Your task to perform on an android device: Is it going to rain this weekend? Image 0: 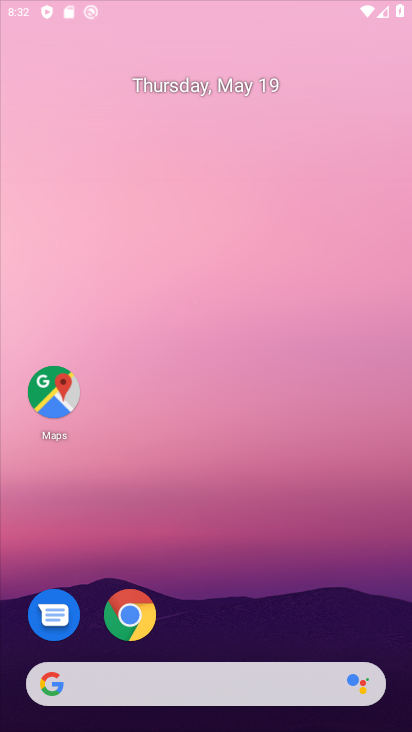
Step 0: press home button
Your task to perform on an android device: Is it going to rain this weekend? Image 1: 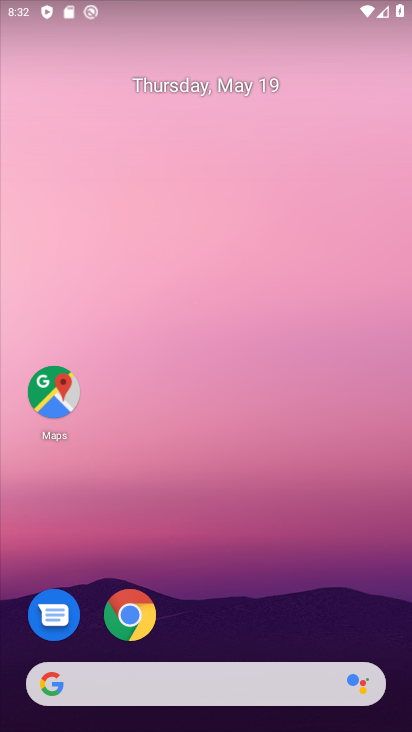
Step 1: click (123, 638)
Your task to perform on an android device: Is it going to rain this weekend? Image 2: 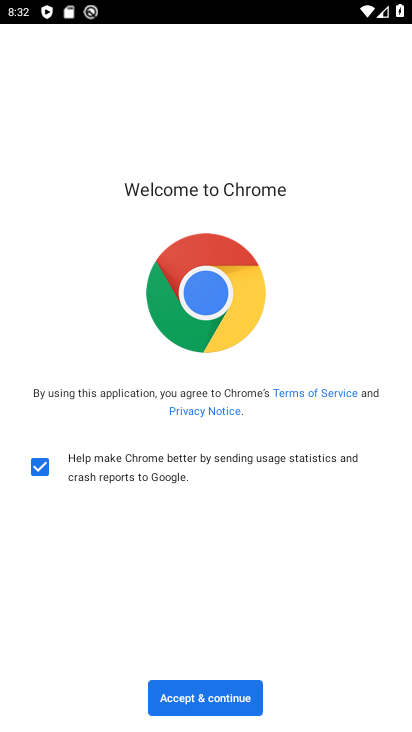
Step 2: click (200, 700)
Your task to perform on an android device: Is it going to rain this weekend? Image 3: 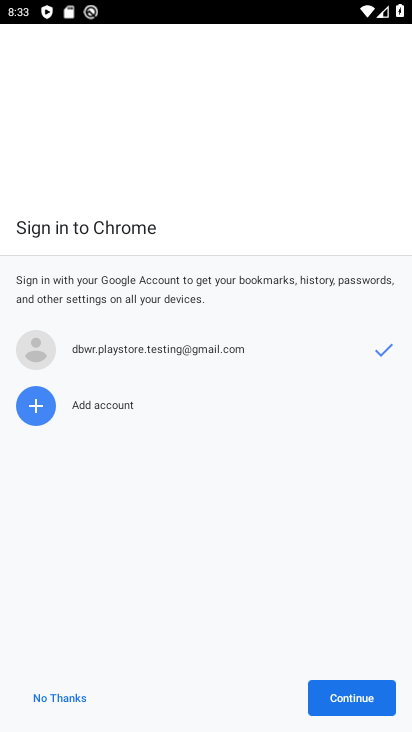
Step 3: click (329, 689)
Your task to perform on an android device: Is it going to rain this weekend? Image 4: 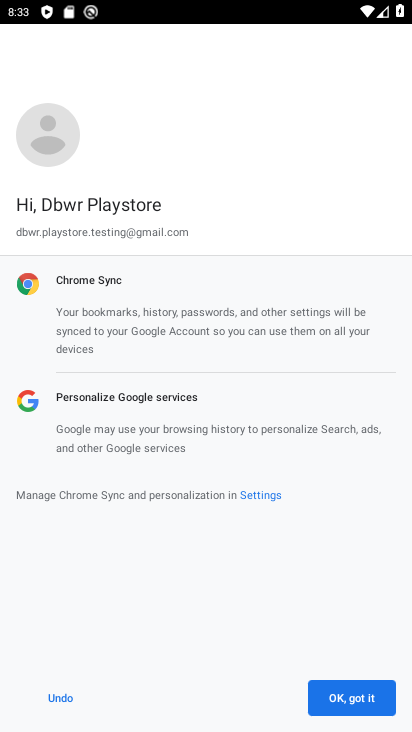
Step 4: click (334, 694)
Your task to perform on an android device: Is it going to rain this weekend? Image 5: 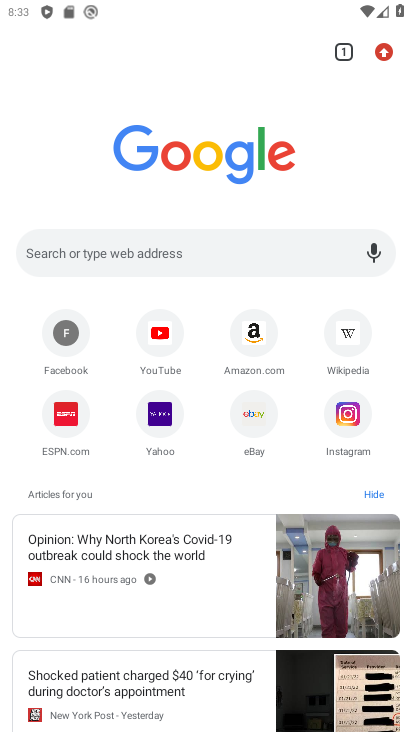
Step 5: click (316, 251)
Your task to perform on an android device: Is it going to rain this weekend? Image 6: 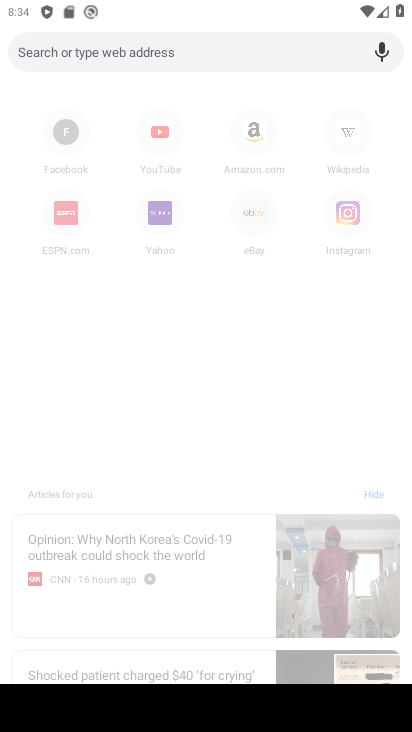
Step 6: type "Is it going to rain this weekend?"
Your task to perform on an android device: Is it going to rain this weekend? Image 7: 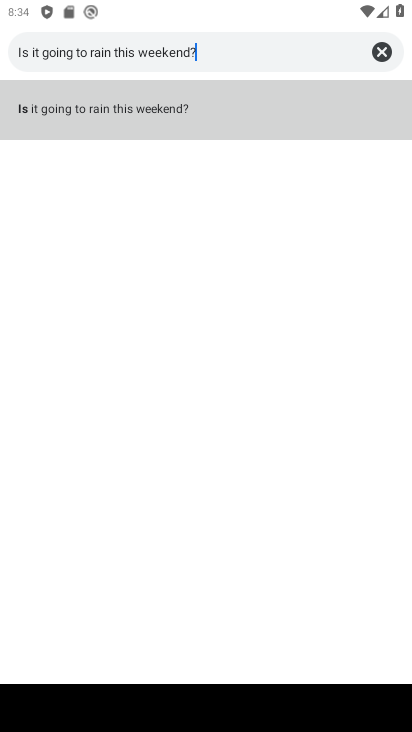
Step 7: type ""
Your task to perform on an android device: Is it going to rain this weekend? Image 8: 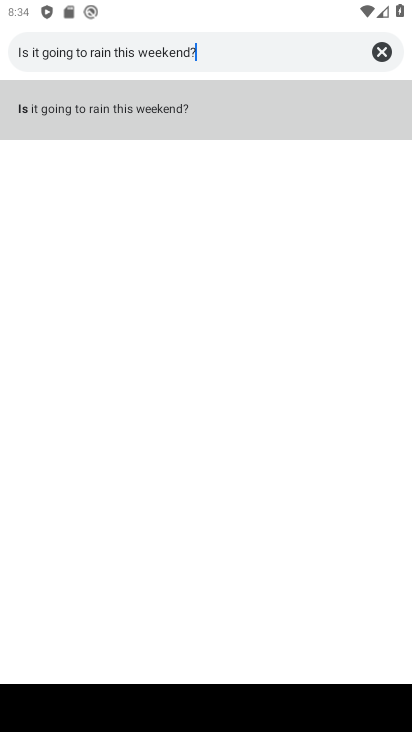
Step 8: click (310, 105)
Your task to perform on an android device: Is it going to rain this weekend? Image 9: 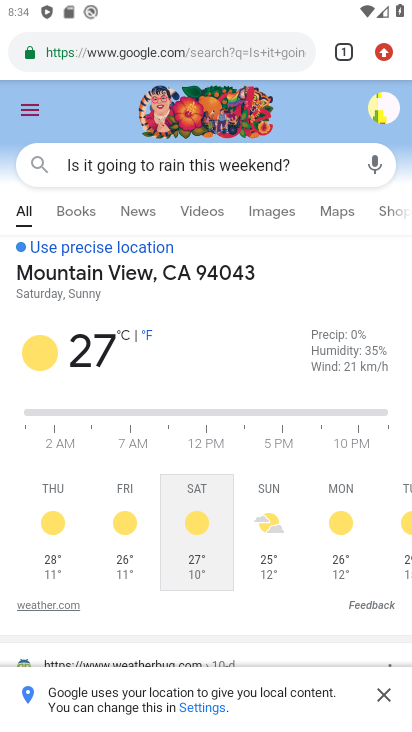
Step 9: task complete